Your task to perform on an android device: check data usage Image 0: 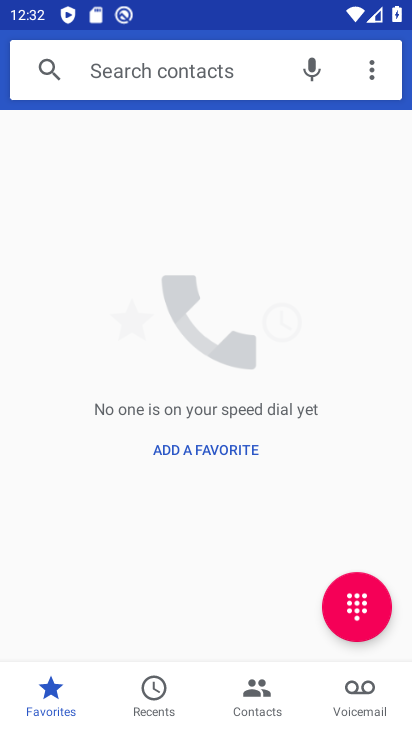
Step 0: press home button
Your task to perform on an android device: check data usage Image 1: 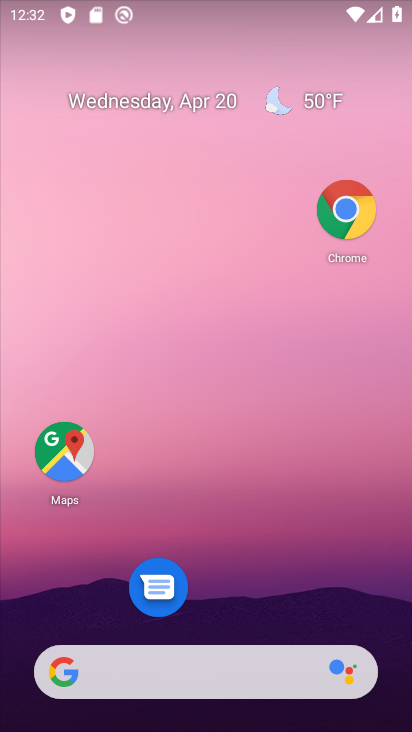
Step 1: drag from (244, 615) to (245, 0)
Your task to perform on an android device: check data usage Image 2: 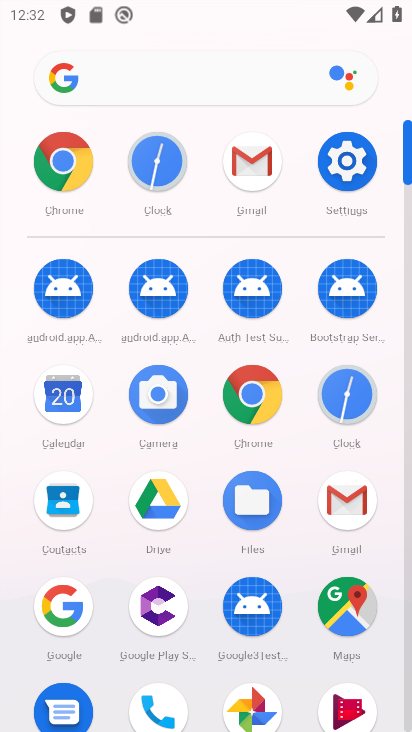
Step 2: click (356, 163)
Your task to perform on an android device: check data usage Image 3: 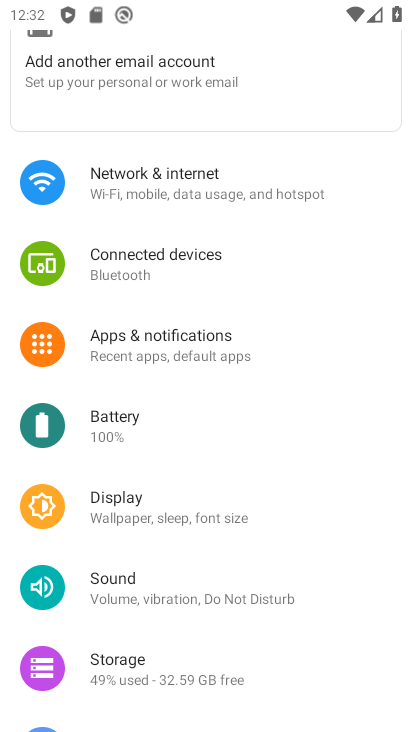
Step 3: click (198, 189)
Your task to perform on an android device: check data usage Image 4: 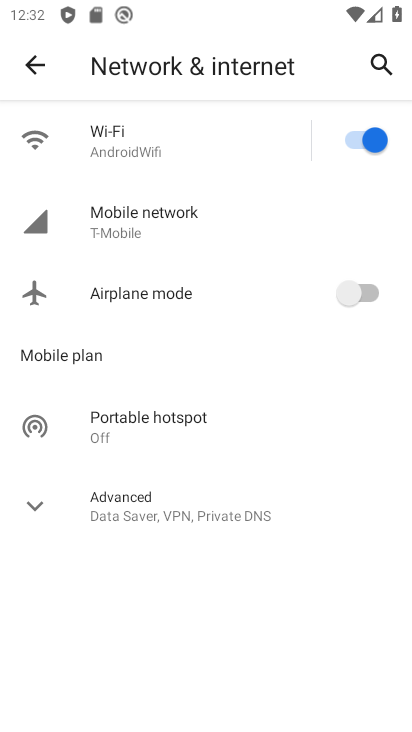
Step 4: click (155, 231)
Your task to perform on an android device: check data usage Image 5: 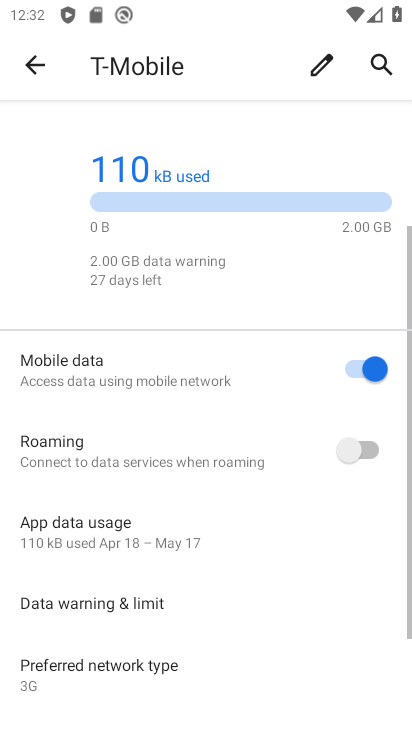
Step 5: drag from (130, 567) to (136, 346)
Your task to perform on an android device: check data usage Image 6: 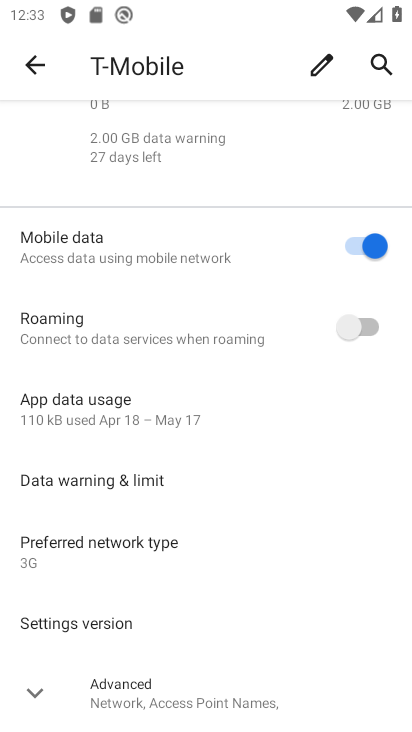
Step 6: click (86, 418)
Your task to perform on an android device: check data usage Image 7: 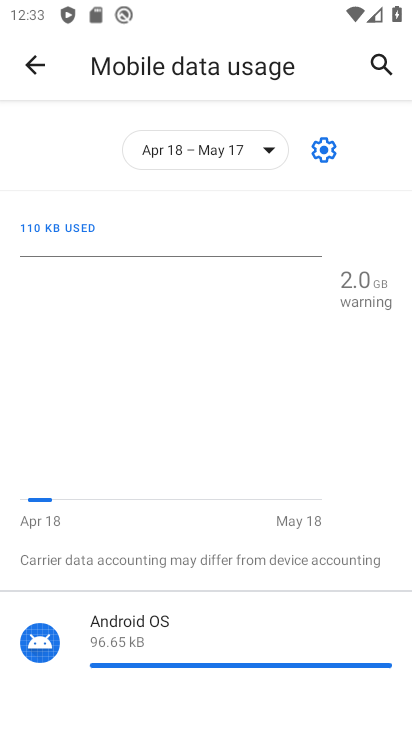
Step 7: task complete